Your task to perform on an android device: Do I have any events this weekend? Image 0: 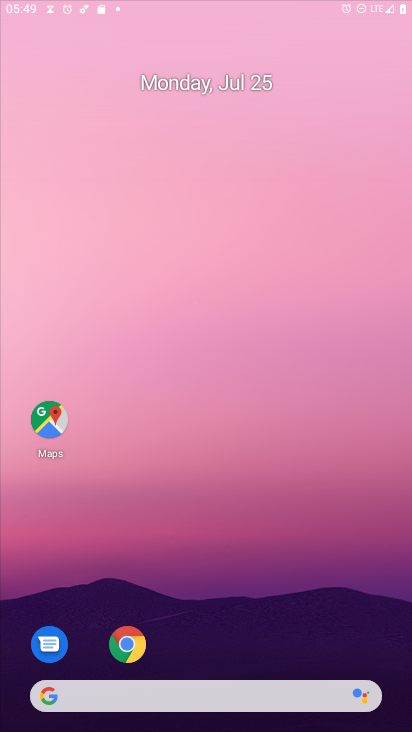
Step 0: press home button
Your task to perform on an android device: Do I have any events this weekend? Image 1: 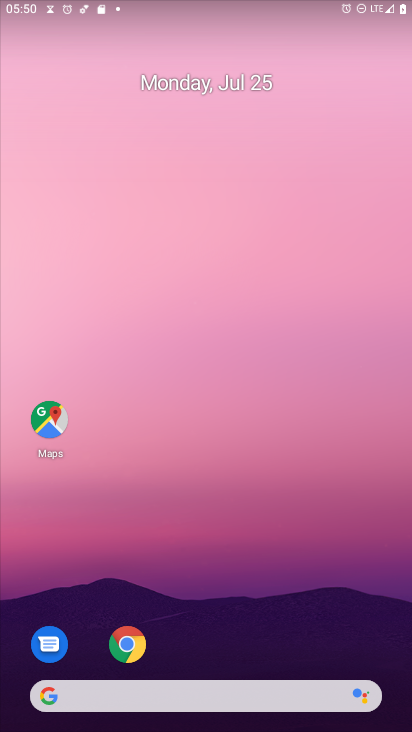
Step 1: drag from (251, 571) to (322, 181)
Your task to perform on an android device: Do I have any events this weekend? Image 2: 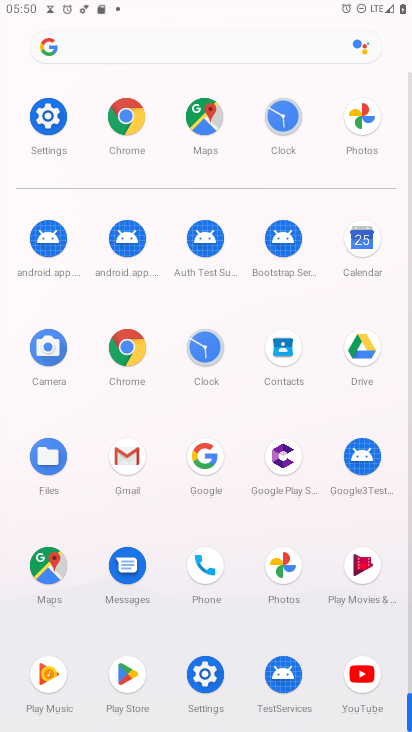
Step 2: click (363, 245)
Your task to perform on an android device: Do I have any events this weekend? Image 3: 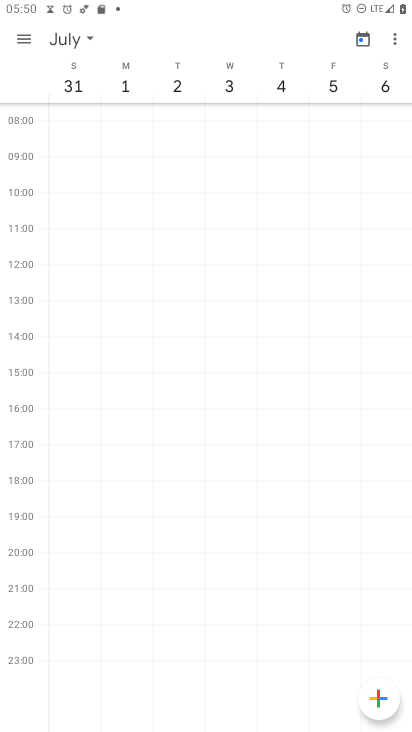
Step 3: click (24, 42)
Your task to perform on an android device: Do I have any events this weekend? Image 4: 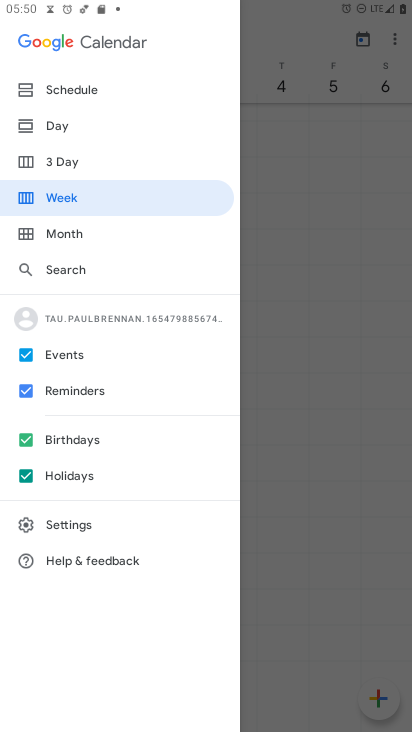
Step 4: click (77, 202)
Your task to perform on an android device: Do I have any events this weekend? Image 5: 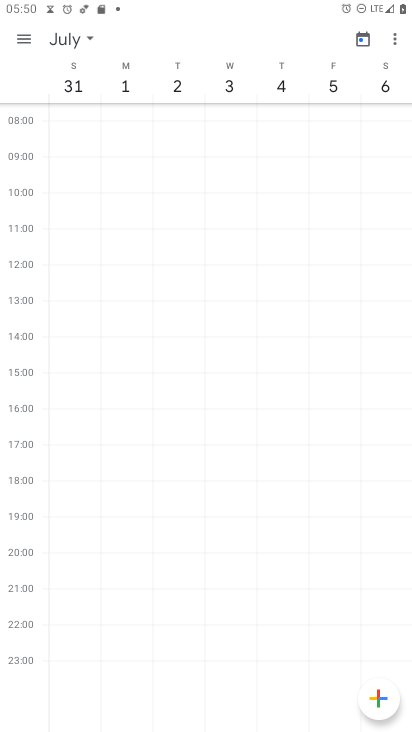
Step 5: task complete